Your task to perform on an android device: Go to calendar. Show me events next week Image 0: 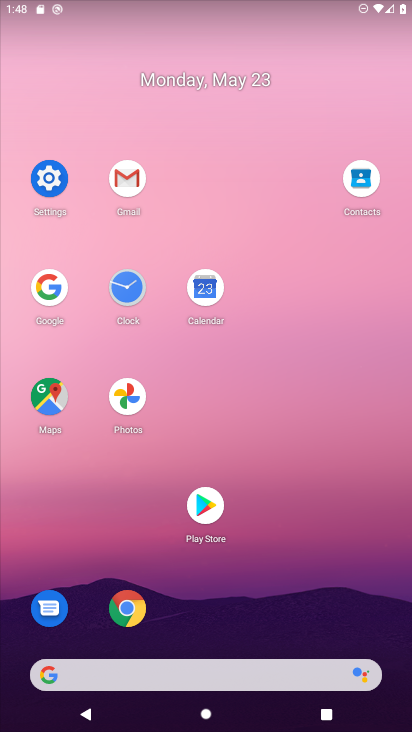
Step 0: click (204, 292)
Your task to perform on an android device: Go to calendar. Show me events next week Image 1: 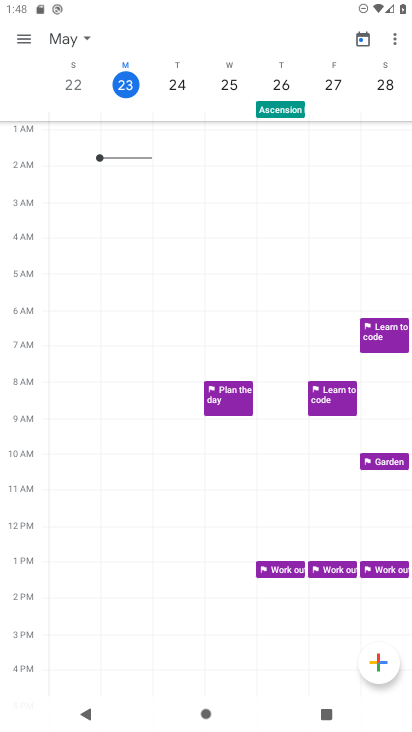
Step 1: click (26, 28)
Your task to perform on an android device: Go to calendar. Show me events next week Image 2: 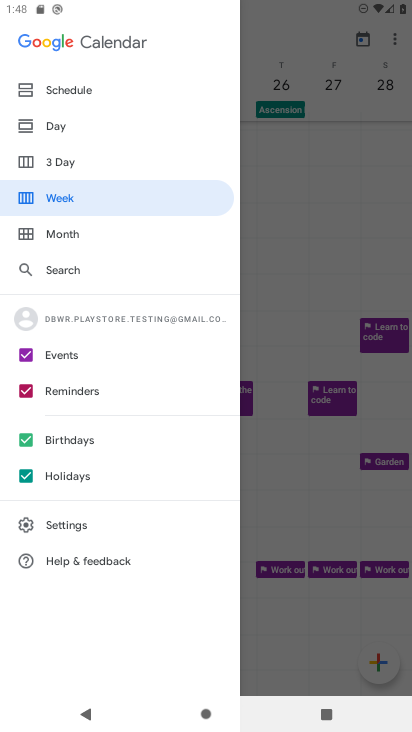
Step 2: click (59, 195)
Your task to perform on an android device: Go to calendar. Show me events next week Image 3: 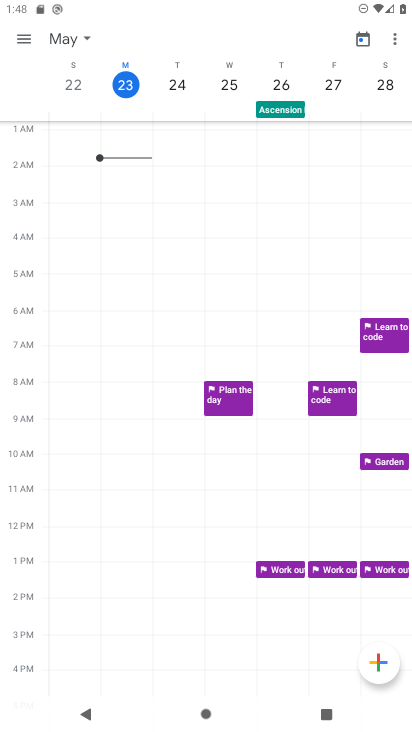
Step 3: click (21, 42)
Your task to perform on an android device: Go to calendar. Show me events next week Image 4: 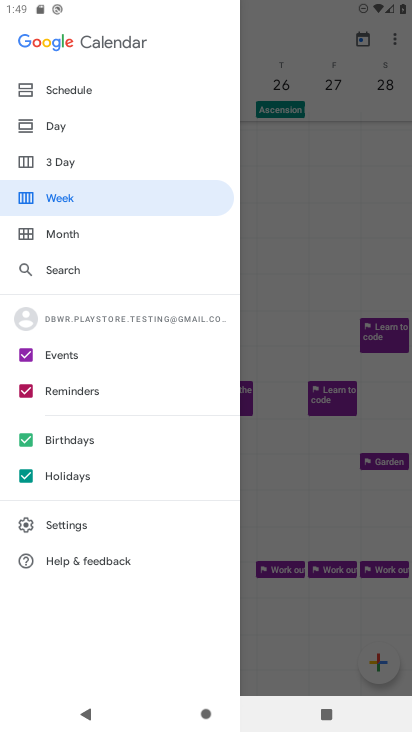
Step 4: click (82, 204)
Your task to perform on an android device: Go to calendar. Show me events next week Image 5: 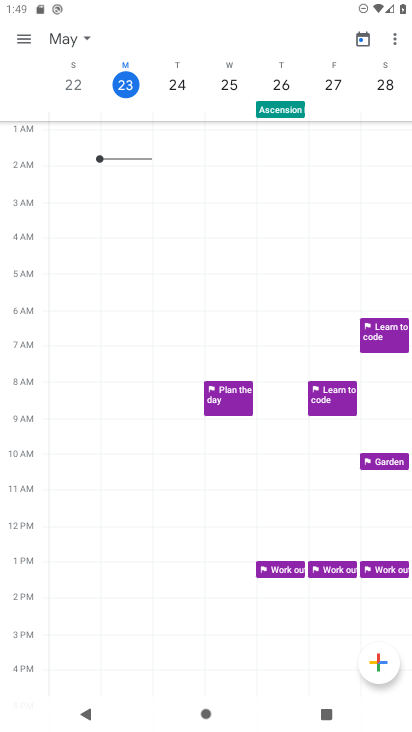
Step 5: task complete